Your task to perform on an android device: Open calendar and show me the first week of next month Image 0: 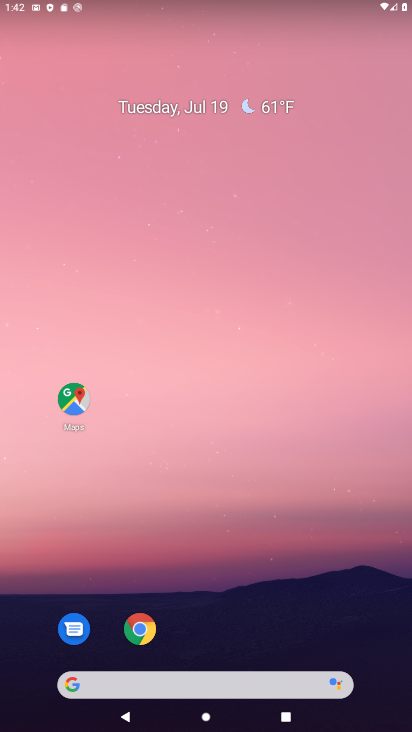
Step 0: drag from (348, 546) to (322, 68)
Your task to perform on an android device: Open calendar and show me the first week of next month Image 1: 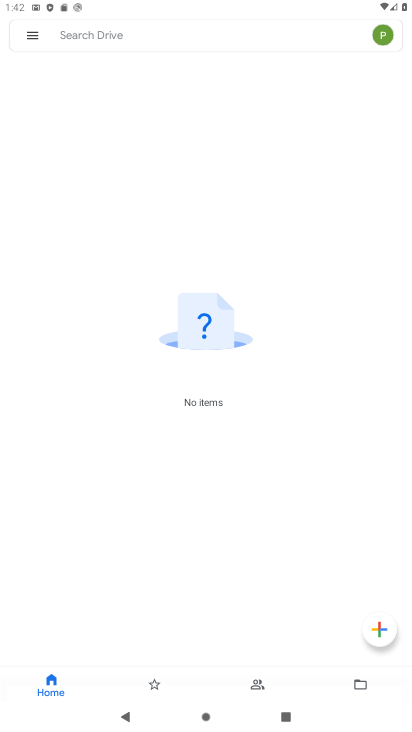
Step 1: press home button
Your task to perform on an android device: Open calendar and show me the first week of next month Image 2: 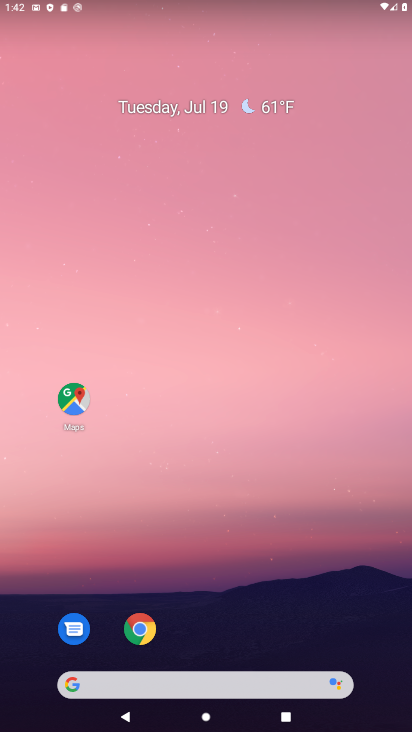
Step 2: drag from (383, 648) to (354, 62)
Your task to perform on an android device: Open calendar and show me the first week of next month Image 3: 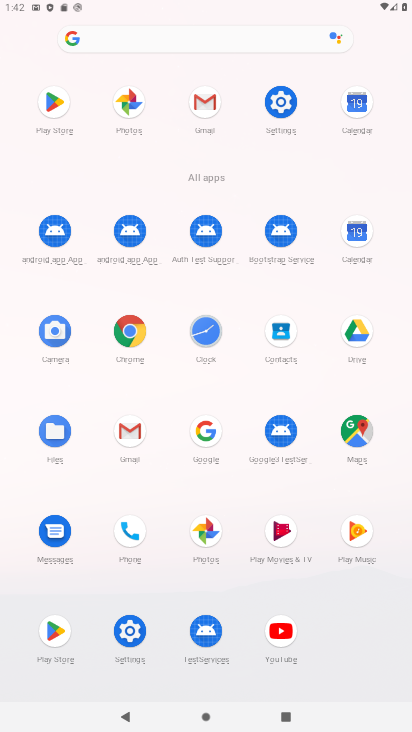
Step 3: click (354, 233)
Your task to perform on an android device: Open calendar and show me the first week of next month Image 4: 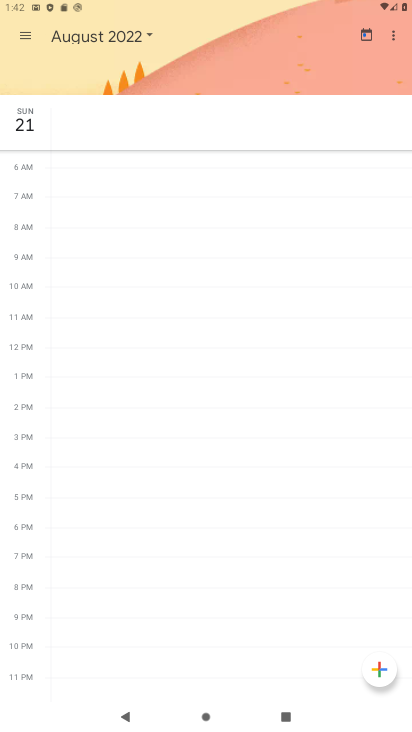
Step 4: click (29, 39)
Your task to perform on an android device: Open calendar and show me the first week of next month Image 5: 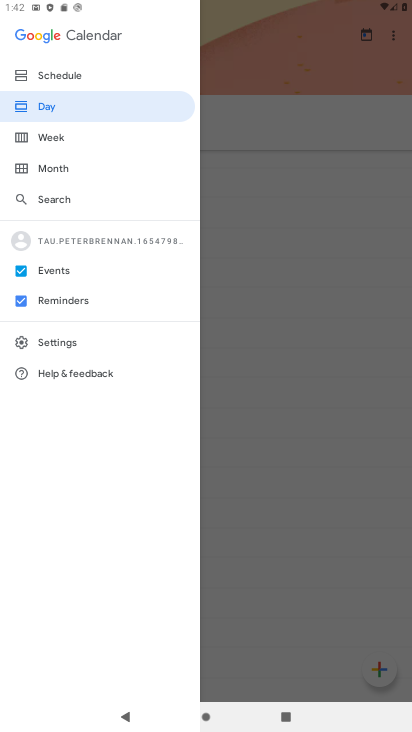
Step 5: click (36, 136)
Your task to perform on an android device: Open calendar and show me the first week of next month Image 6: 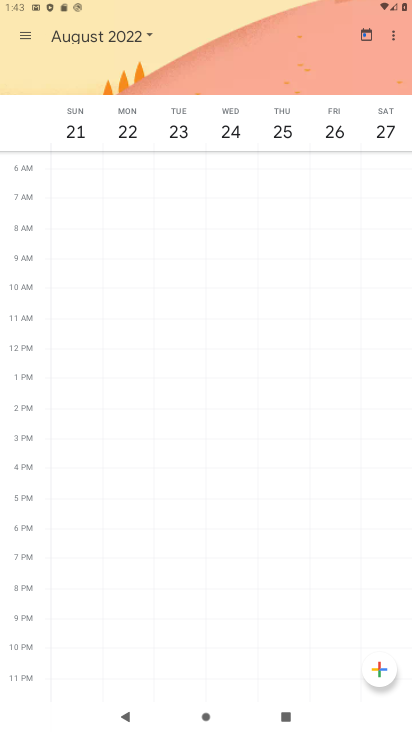
Step 6: click (150, 34)
Your task to perform on an android device: Open calendar and show me the first week of next month Image 7: 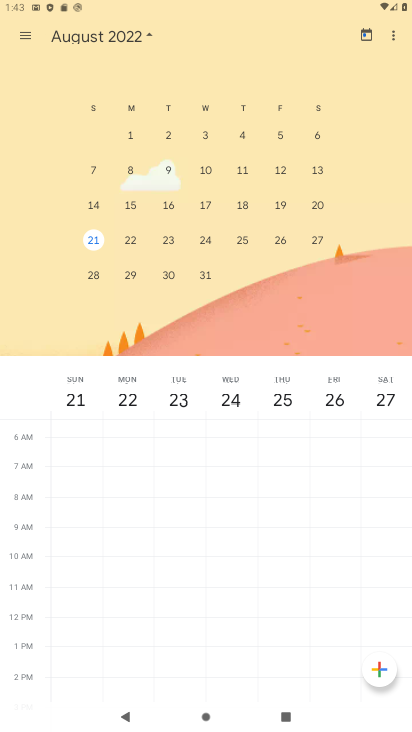
Step 7: click (93, 167)
Your task to perform on an android device: Open calendar and show me the first week of next month Image 8: 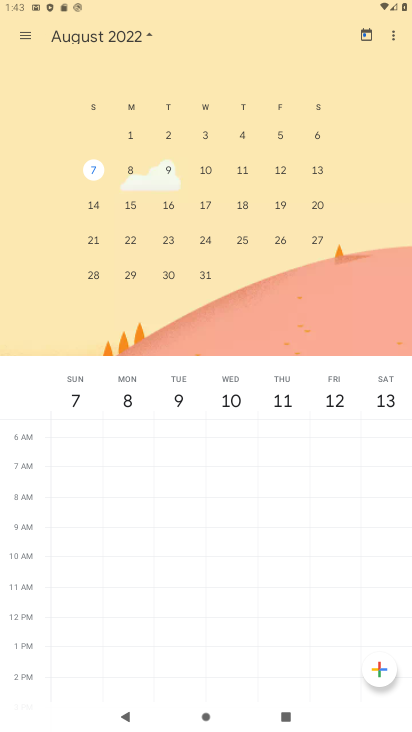
Step 8: task complete